Your task to perform on an android device: Open the stopwatch Image 0: 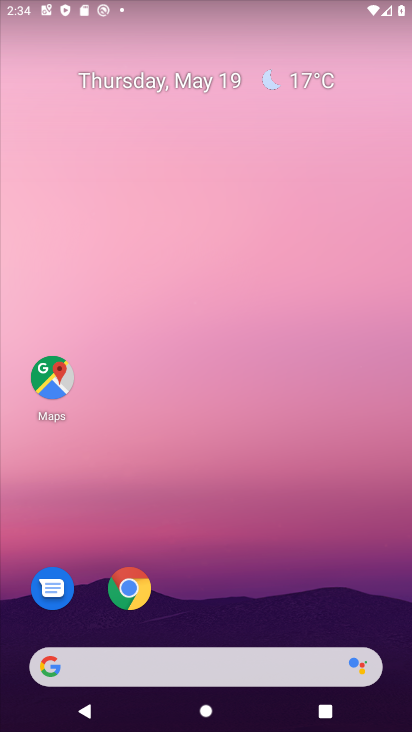
Step 0: drag from (263, 570) to (252, 106)
Your task to perform on an android device: Open the stopwatch Image 1: 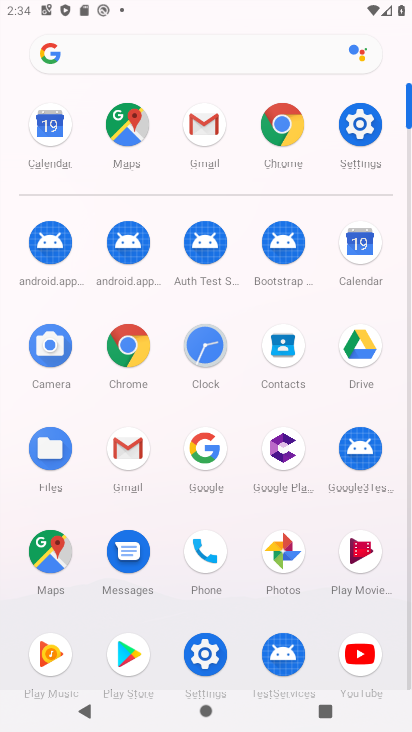
Step 1: click (193, 343)
Your task to perform on an android device: Open the stopwatch Image 2: 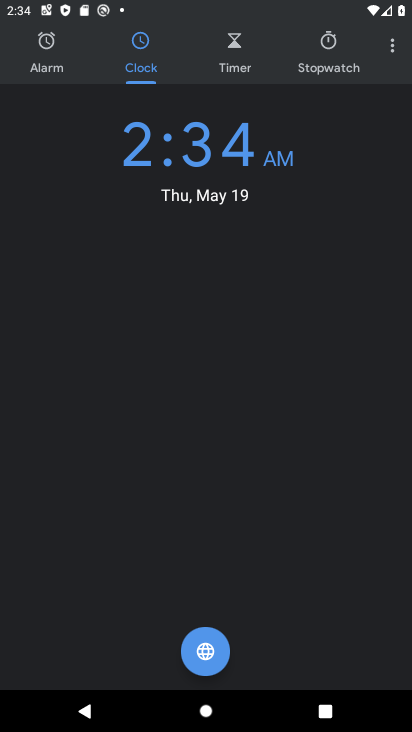
Step 2: click (339, 41)
Your task to perform on an android device: Open the stopwatch Image 3: 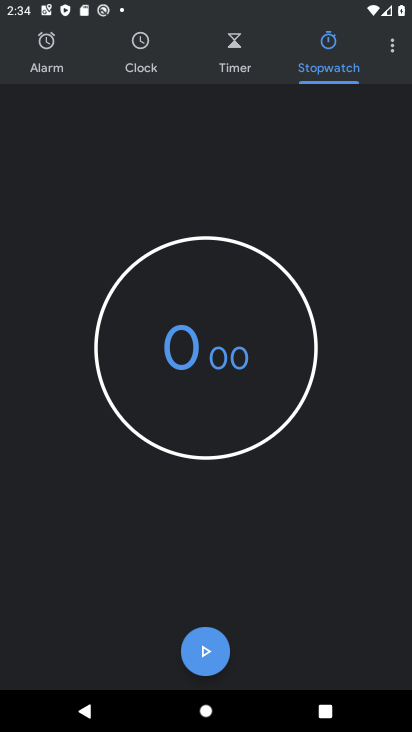
Step 3: task complete